Your task to perform on an android device: Go to sound settings Image 0: 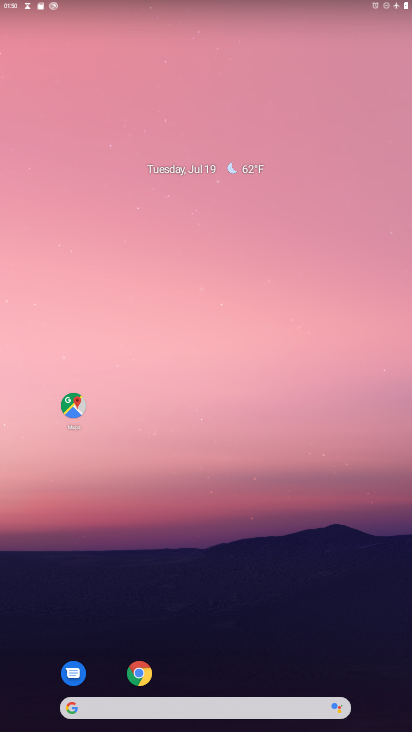
Step 0: drag from (253, 637) to (230, 336)
Your task to perform on an android device: Go to sound settings Image 1: 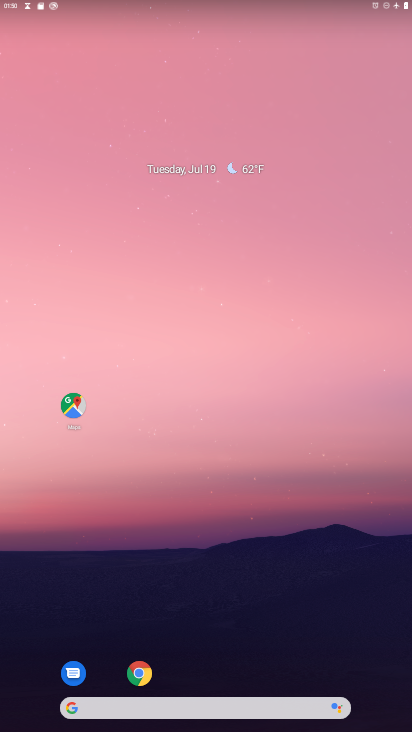
Step 1: drag from (244, 617) to (182, 58)
Your task to perform on an android device: Go to sound settings Image 2: 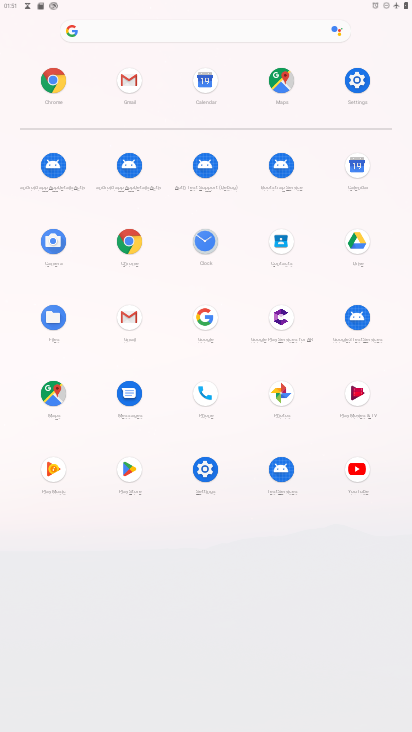
Step 2: click (364, 76)
Your task to perform on an android device: Go to sound settings Image 3: 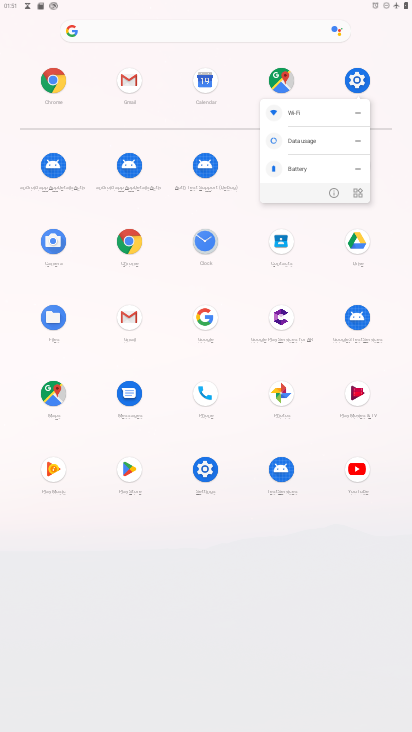
Step 3: click (364, 76)
Your task to perform on an android device: Go to sound settings Image 4: 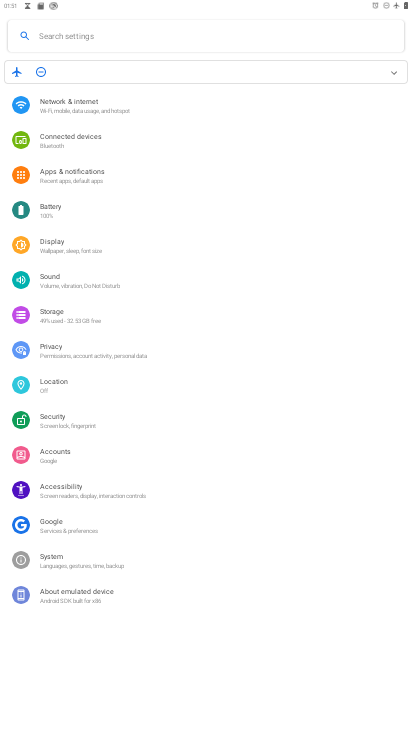
Step 4: click (64, 280)
Your task to perform on an android device: Go to sound settings Image 5: 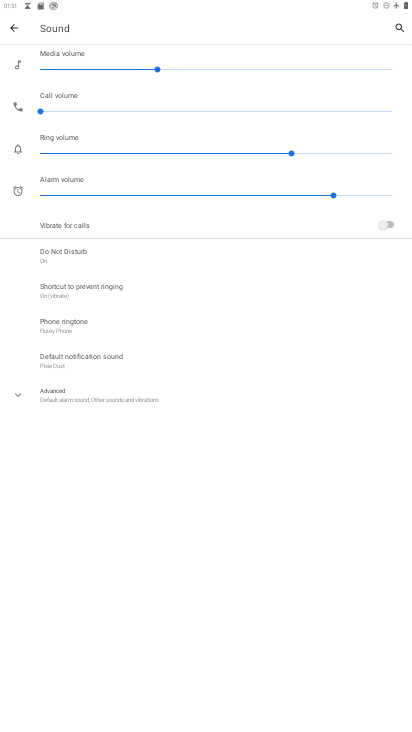
Step 5: task complete